Your task to perform on an android device: find photos in the google photos app Image 0: 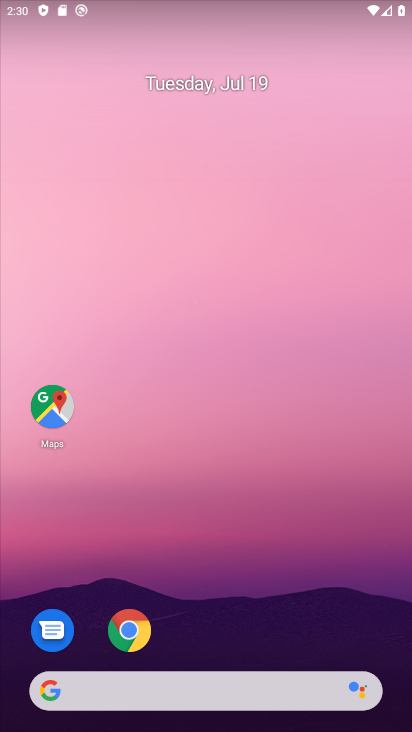
Step 0: drag from (308, 643) to (182, 2)
Your task to perform on an android device: find photos in the google photos app Image 1: 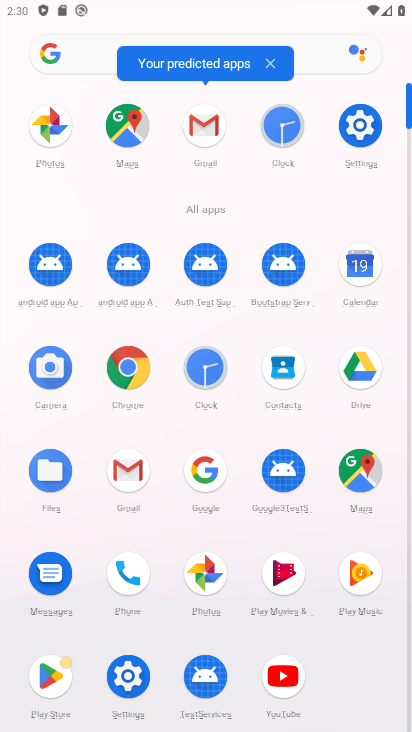
Step 1: click (54, 128)
Your task to perform on an android device: find photos in the google photos app Image 2: 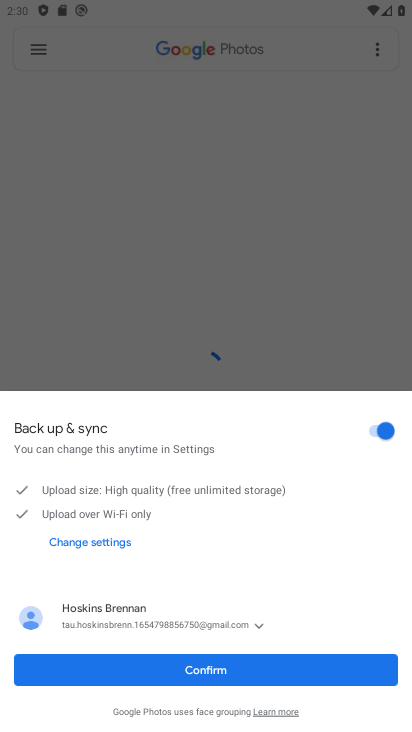
Step 2: click (289, 676)
Your task to perform on an android device: find photos in the google photos app Image 3: 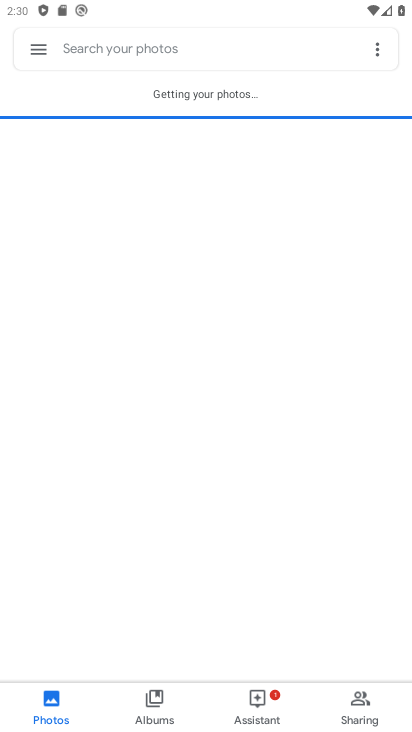
Step 3: task complete